Your task to perform on an android device: open app "WhatsApp Messenger" (install if not already installed) Image 0: 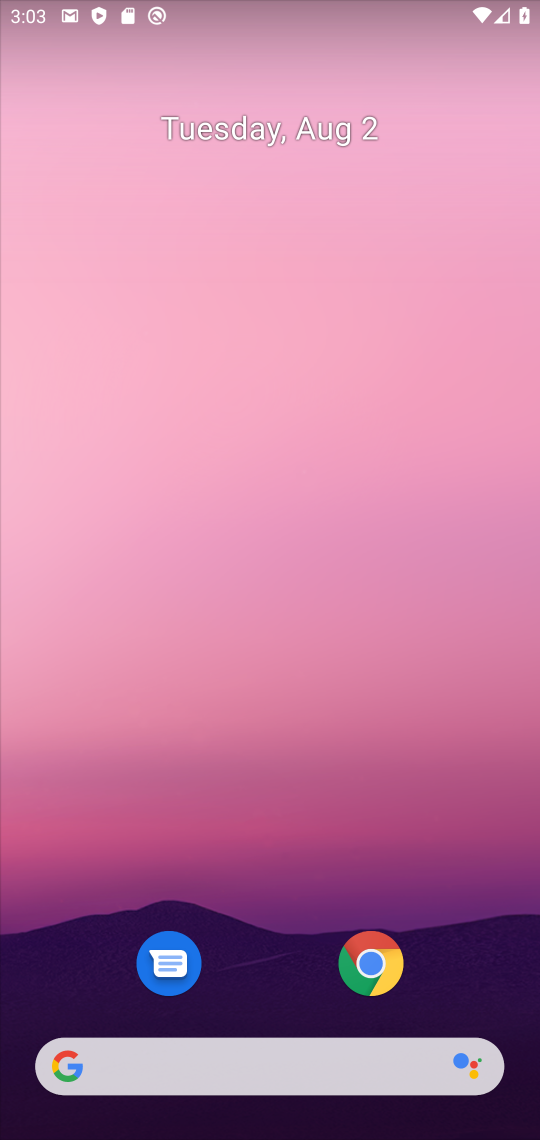
Step 0: drag from (269, 977) to (194, 266)
Your task to perform on an android device: open app "WhatsApp Messenger" (install if not already installed) Image 1: 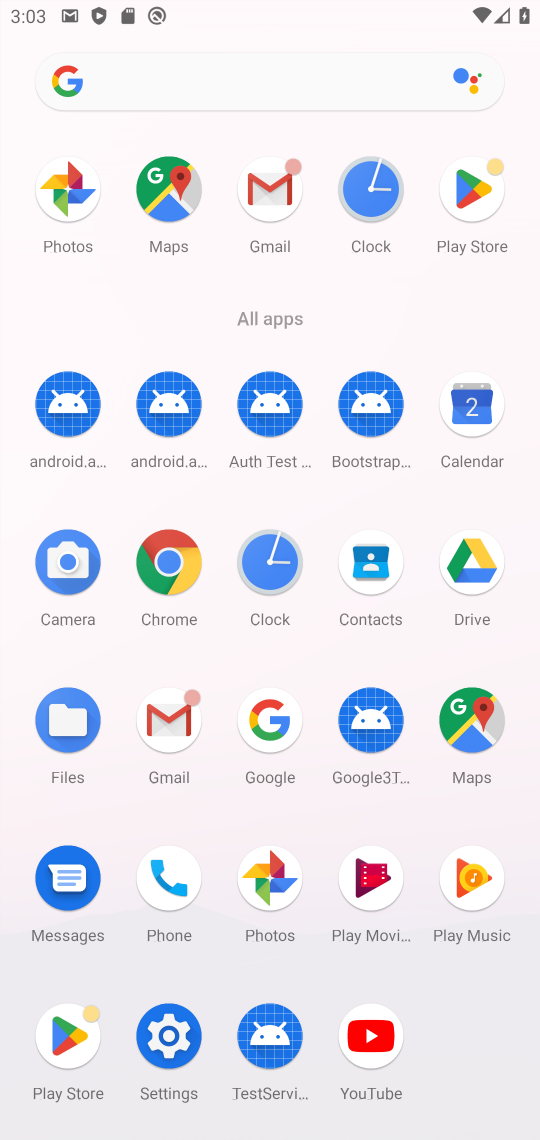
Step 1: click (65, 1043)
Your task to perform on an android device: open app "WhatsApp Messenger" (install if not already installed) Image 2: 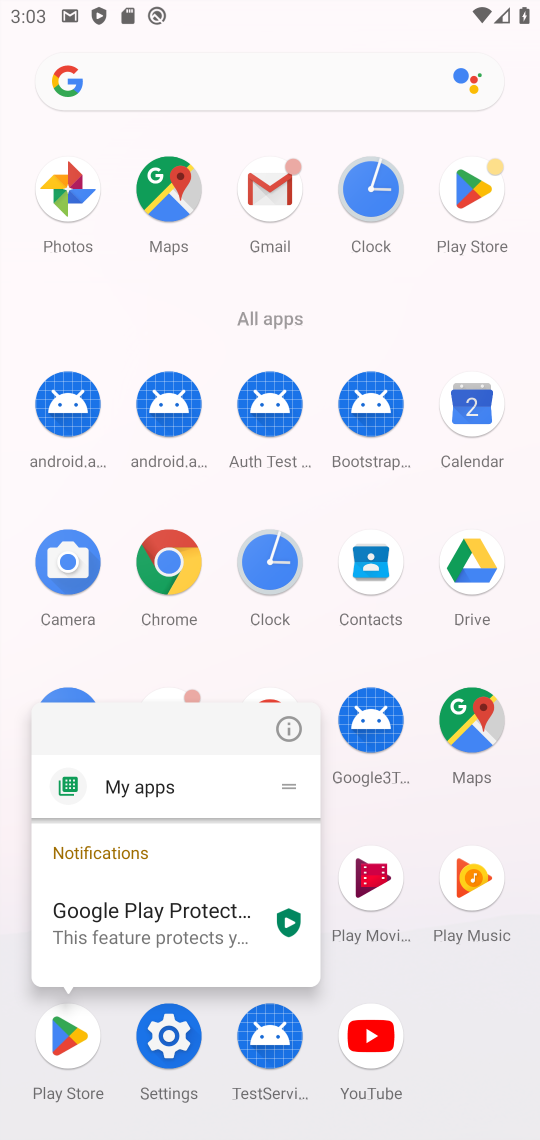
Step 2: click (65, 1043)
Your task to perform on an android device: open app "WhatsApp Messenger" (install if not already installed) Image 3: 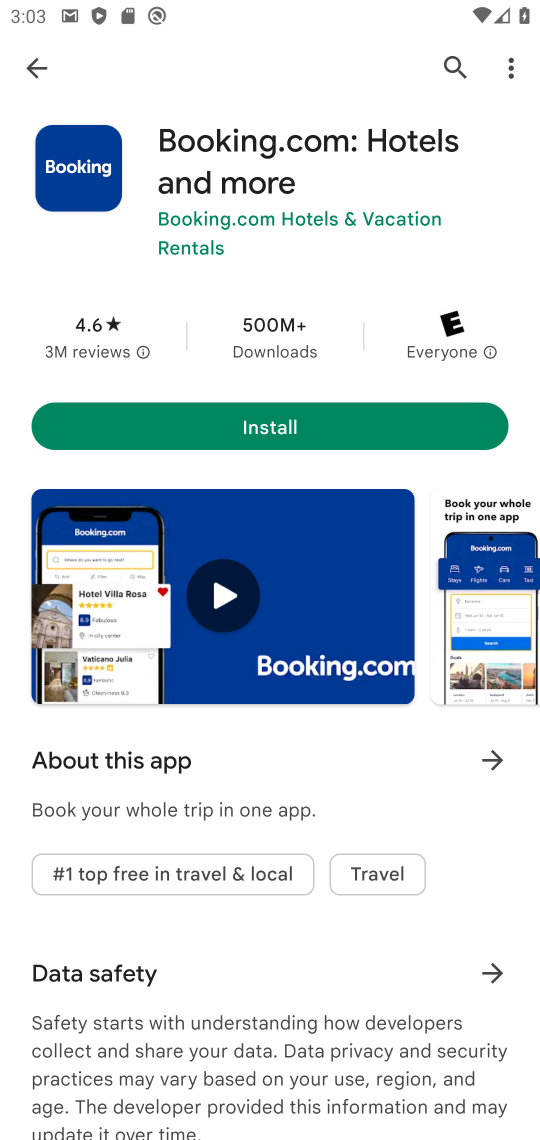
Step 3: click (446, 72)
Your task to perform on an android device: open app "WhatsApp Messenger" (install if not already installed) Image 4: 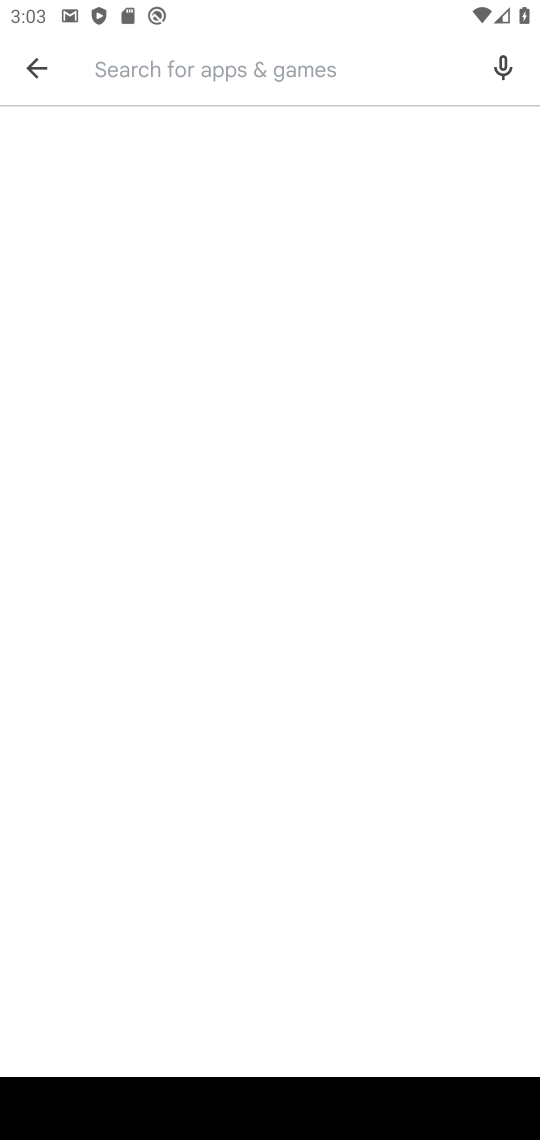
Step 4: type "whatsapp messenger"
Your task to perform on an android device: open app "WhatsApp Messenger" (install if not already installed) Image 5: 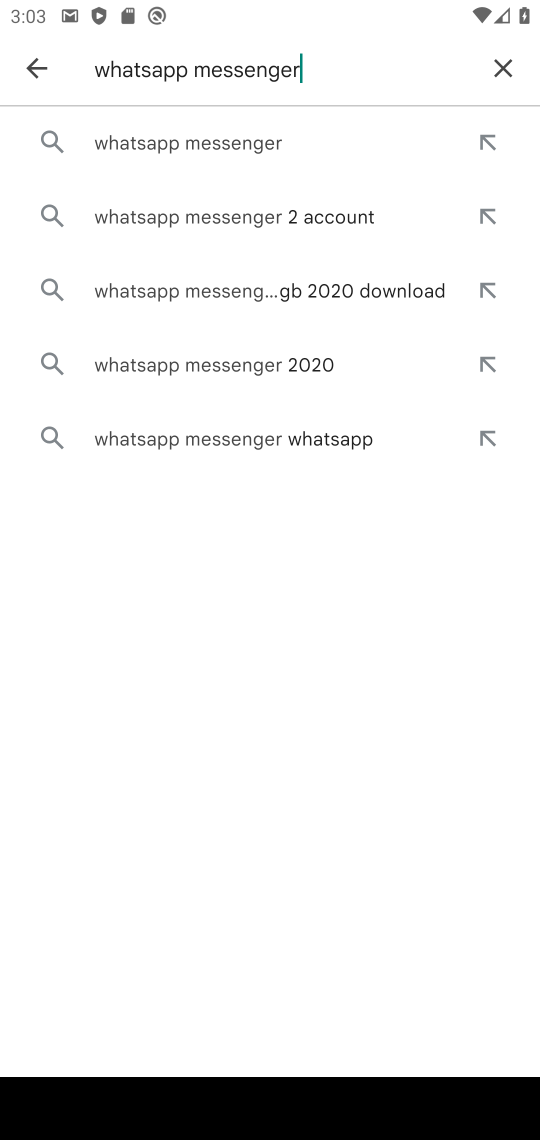
Step 5: click (158, 153)
Your task to perform on an android device: open app "WhatsApp Messenger" (install if not already installed) Image 6: 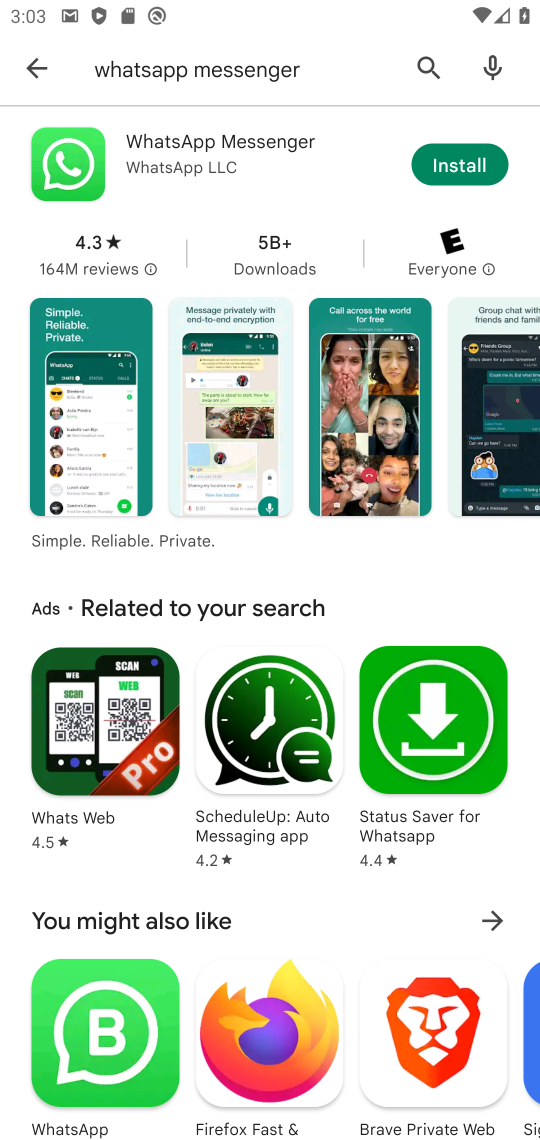
Step 6: click (237, 145)
Your task to perform on an android device: open app "WhatsApp Messenger" (install if not already installed) Image 7: 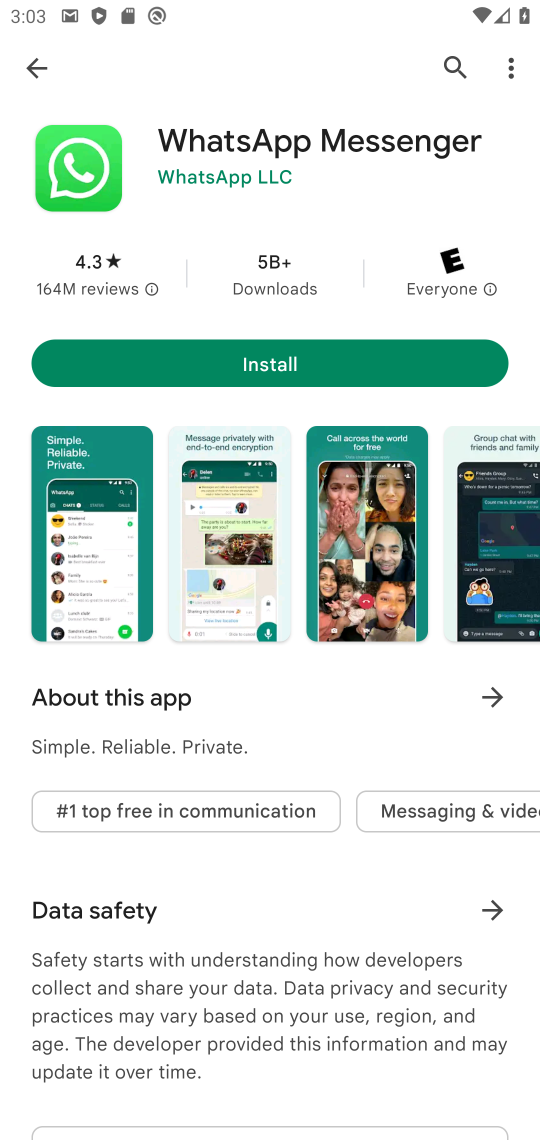
Step 7: click (301, 344)
Your task to perform on an android device: open app "WhatsApp Messenger" (install if not already installed) Image 8: 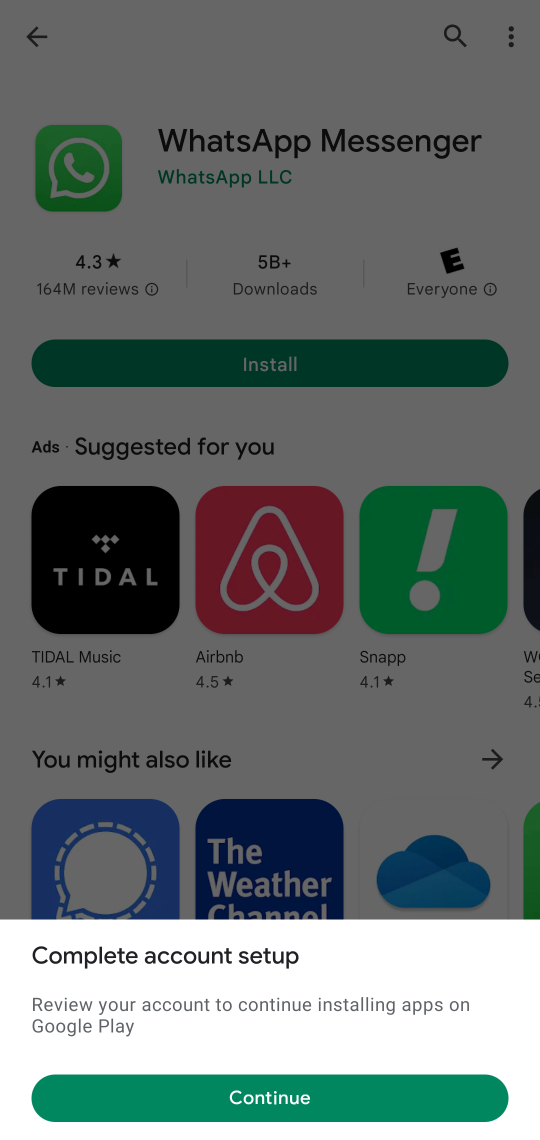
Step 8: click (314, 1089)
Your task to perform on an android device: open app "WhatsApp Messenger" (install if not already installed) Image 9: 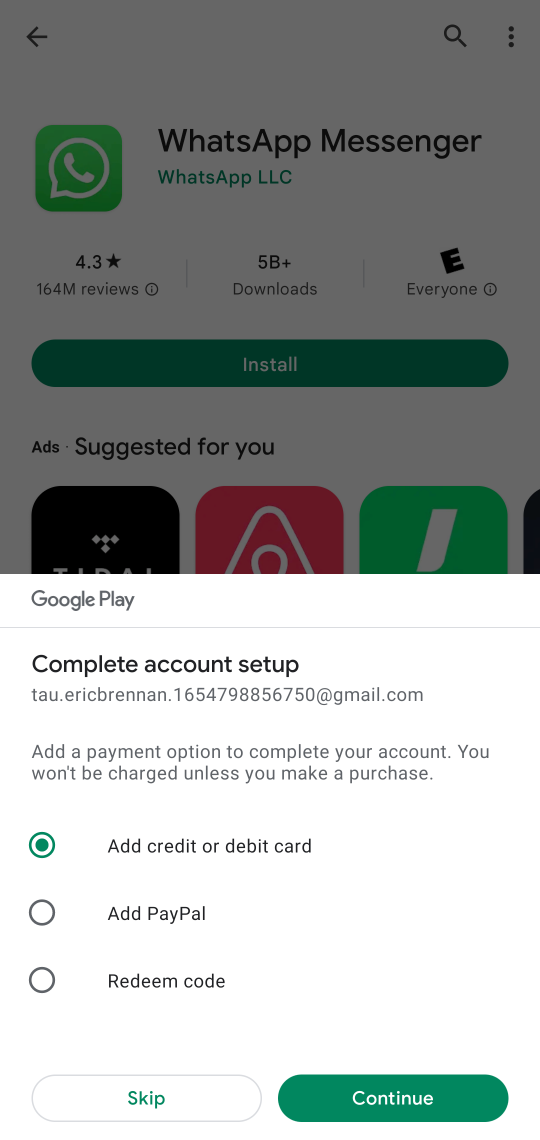
Step 9: click (191, 1086)
Your task to perform on an android device: open app "WhatsApp Messenger" (install if not already installed) Image 10: 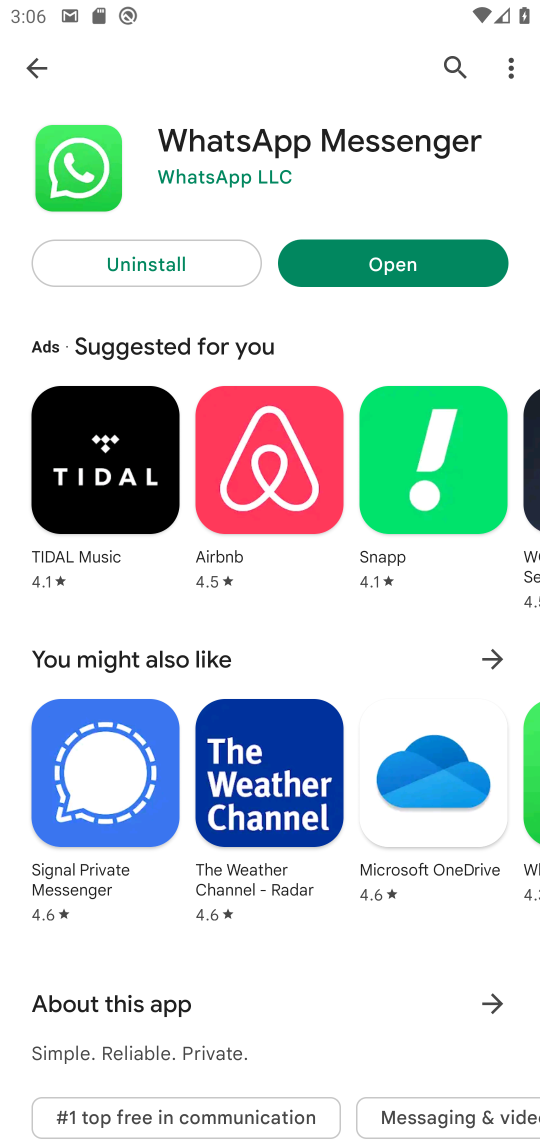
Step 10: click (405, 273)
Your task to perform on an android device: open app "WhatsApp Messenger" (install if not already installed) Image 11: 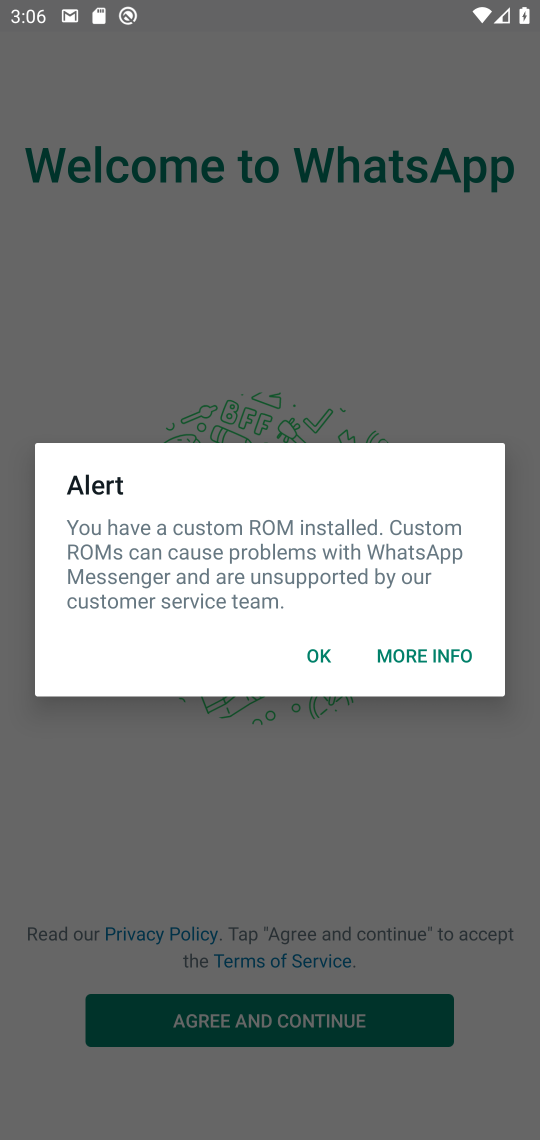
Step 11: task complete